Your task to perform on an android device: make emails show in primary in the gmail app Image 0: 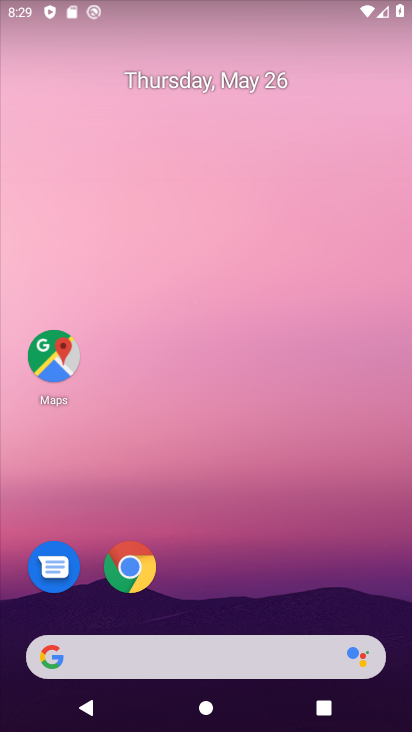
Step 0: drag from (276, 569) to (253, 360)
Your task to perform on an android device: make emails show in primary in the gmail app Image 1: 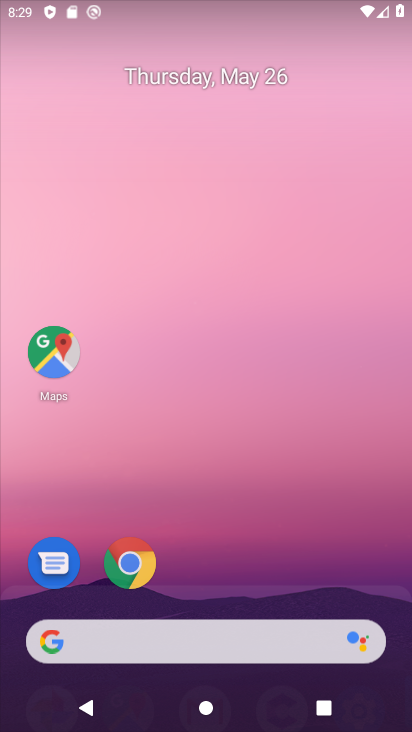
Step 1: click (253, 360)
Your task to perform on an android device: make emails show in primary in the gmail app Image 2: 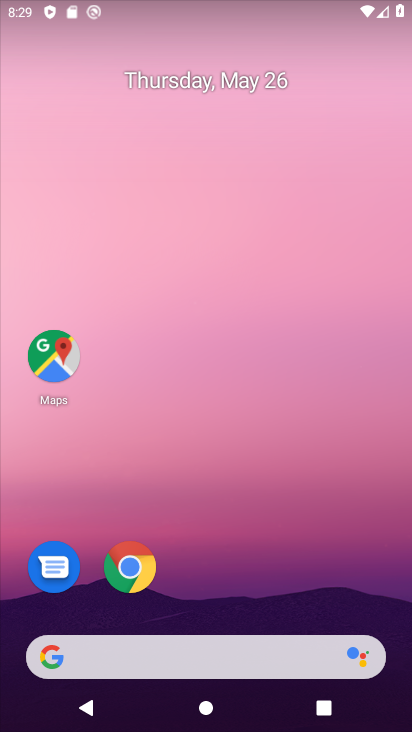
Step 2: drag from (259, 568) to (233, 162)
Your task to perform on an android device: make emails show in primary in the gmail app Image 3: 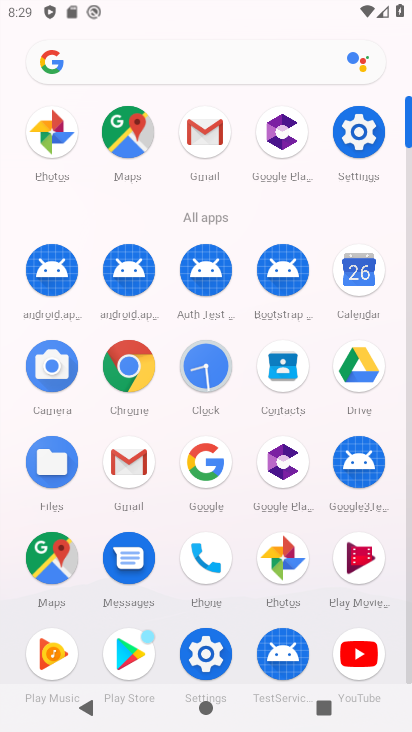
Step 3: click (215, 140)
Your task to perform on an android device: make emails show in primary in the gmail app Image 4: 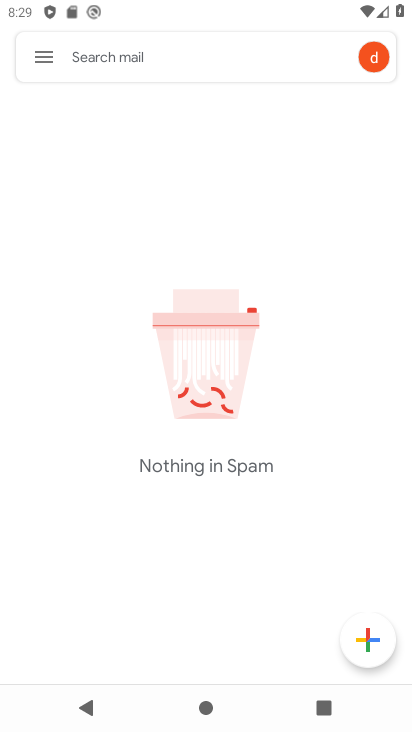
Step 4: click (39, 59)
Your task to perform on an android device: make emails show in primary in the gmail app Image 5: 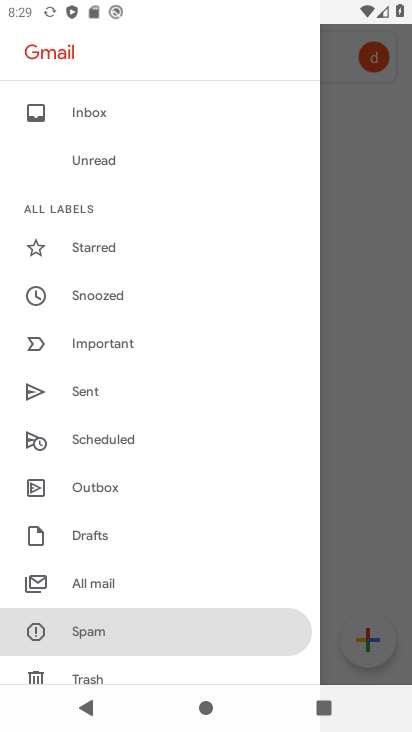
Step 5: drag from (116, 537) to (140, 245)
Your task to perform on an android device: make emails show in primary in the gmail app Image 6: 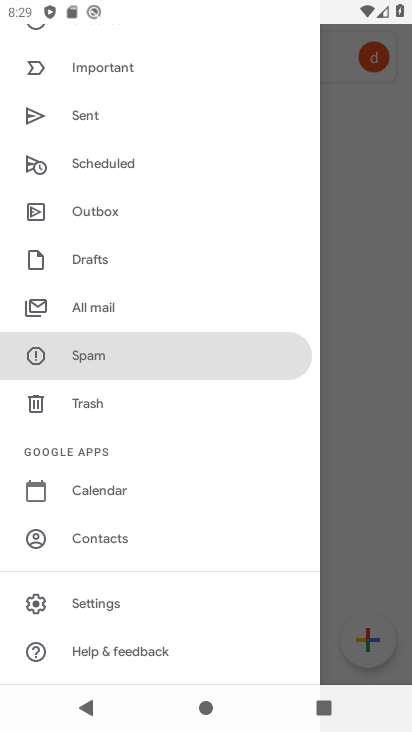
Step 6: click (112, 600)
Your task to perform on an android device: make emails show in primary in the gmail app Image 7: 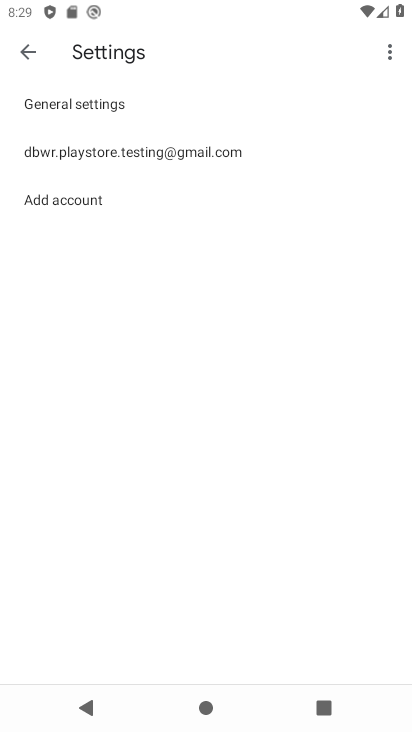
Step 7: click (218, 160)
Your task to perform on an android device: make emails show in primary in the gmail app Image 8: 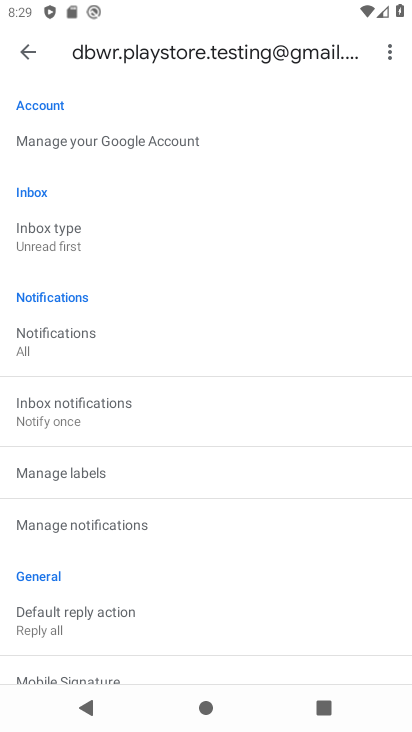
Step 8: click (51, 236)
Your task to perform on an android device: make emails show in primary in the gmail app Image 9: 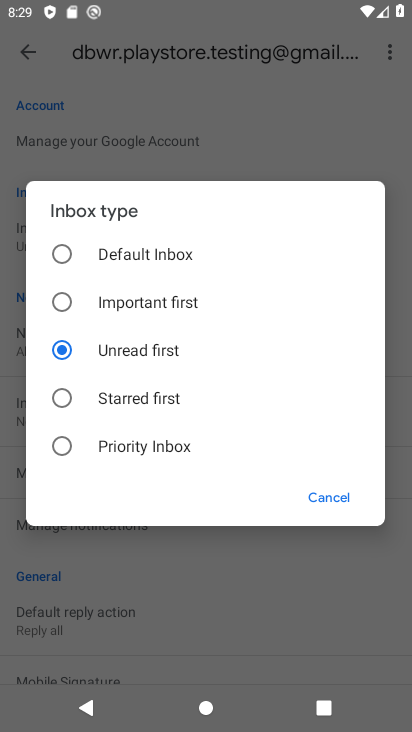
Step 9: click (63, 247)
Your task to perform on an android device: make emails show in primary in the gmail app Image 10: 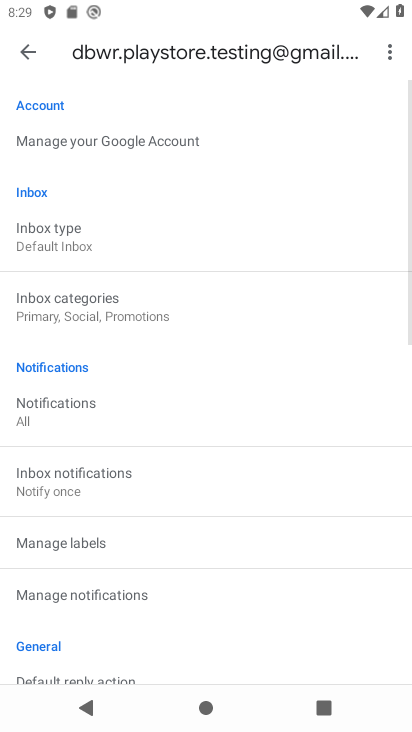
Step 10: click (47, 319)
Your task to perform on an android device: make emails show in primary in the gmail app Image 11: 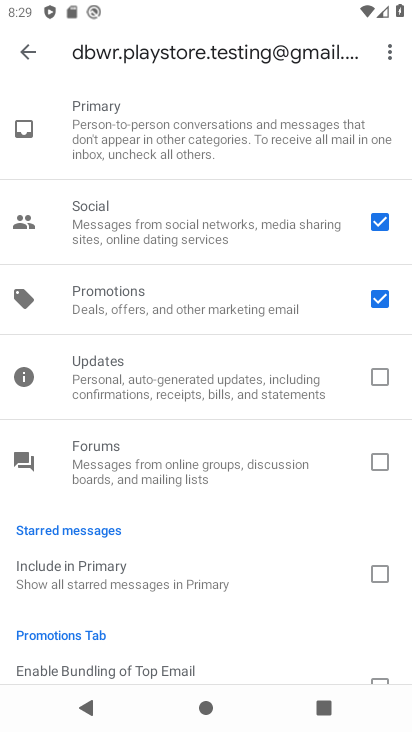
Step 11: click (375, 294)
Your task to perform on an android device: make emails show in primary in the gmail app Image 12: 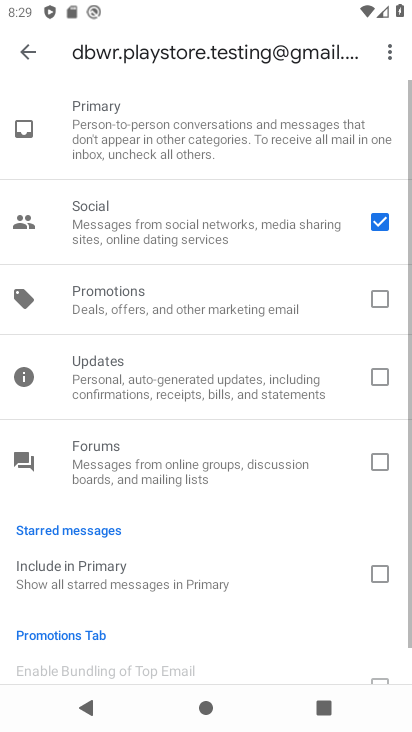
Step 12: click (379, 223)
Your task to perform on an android device: make emails show in primary in the gmail app Image 13: 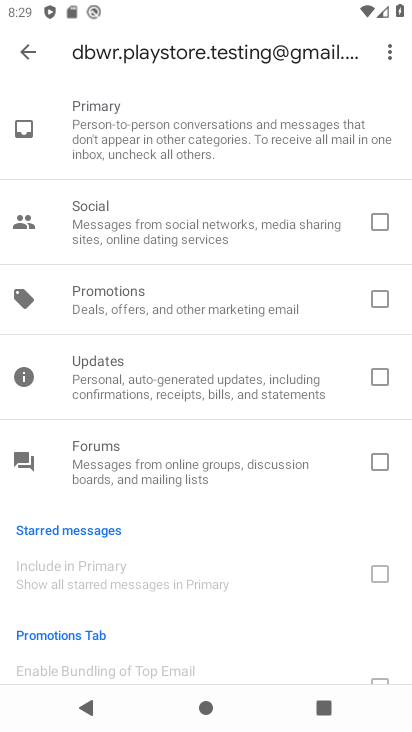
Step 13: task complete